Your task to perform on an android device: toggle priority inbox in the gmail app Image 0: 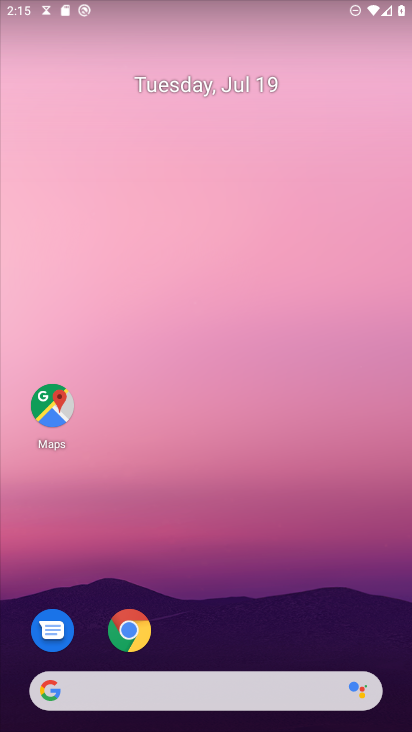
Step 0: press home button
Your task to perform on an android device: toggle priority inbox in the gmail app Image 1: 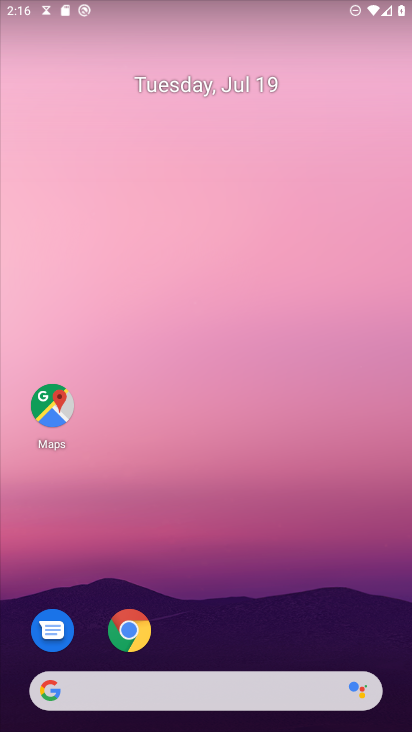
Step 1: drag from (131, 695) to (284, 144)
Your task to perform on an android device: toggle priority inbox in the gmail app Image 2: 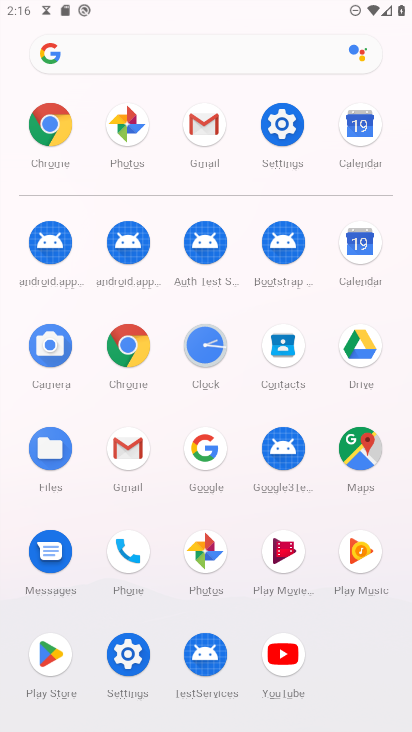
Step 2: click (203, 132)
Your task to perform on an android device: toggle priority inbox in the gmail app Image 3: 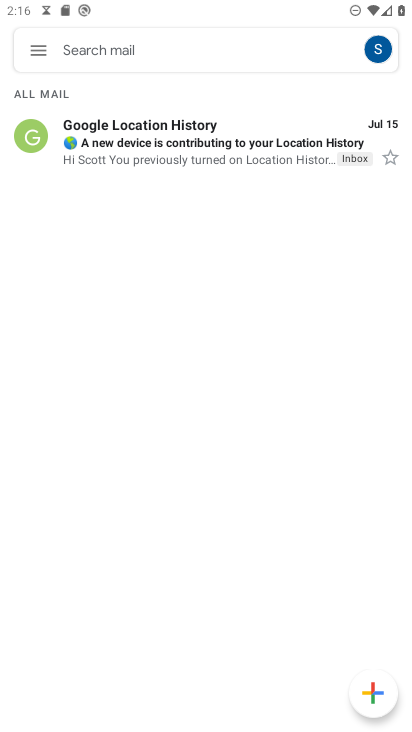
Step 3: click (38, 50)
Your task to perform on an android device: toggle priority inbox in the gmail app Image 4: 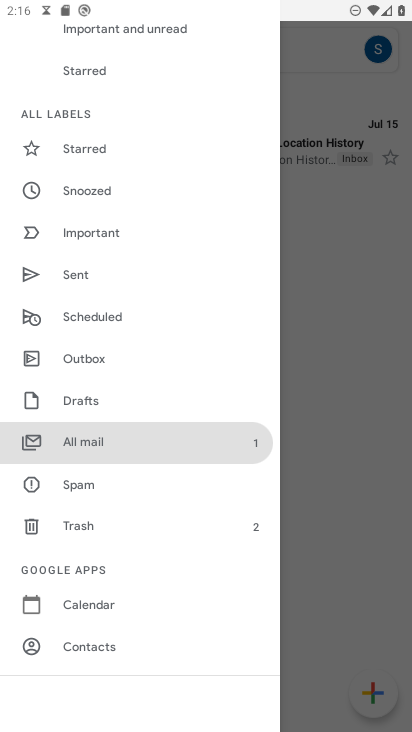
Step 4: drag from (165, 619) to (207, 178)
Your task to perform on an android device: toggle priority inbox in the gmail app Image 5: 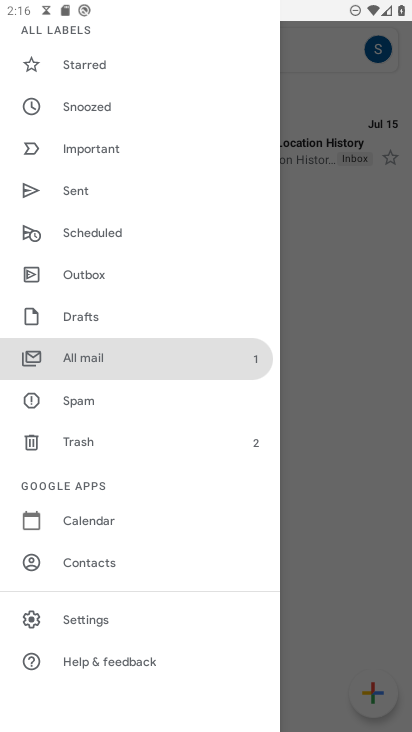
Step 5: click (103, 621)
Your task to perform on an android device: toggle priority inbox in the gmail app Image 6: 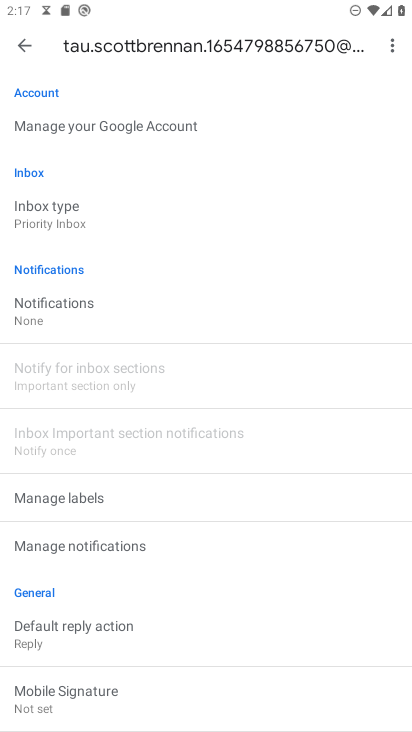
Step 6: click (58, 214)
Your task to perform on an android device: toggle priority inbox in the gmail app Image 7: 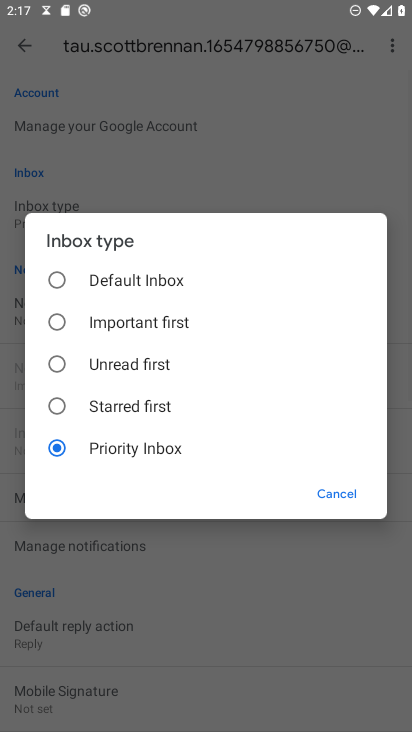
Step 7: click (59, 273)
Your task to perform on an android device: toggle priority inbox in the gmail app Image 8: 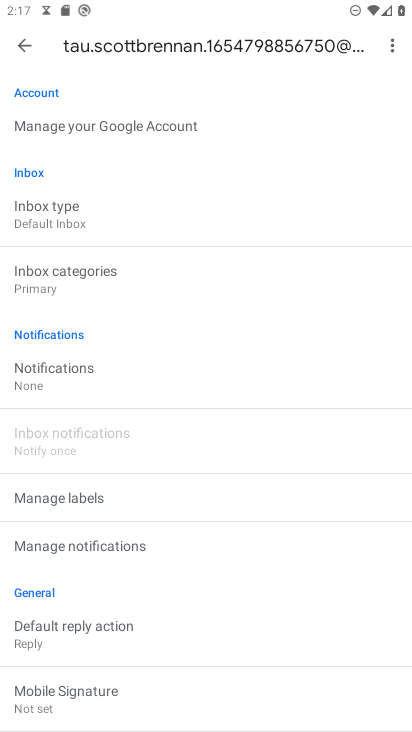
Step 8: task complete